Your task to perform on an android device: Open display settings Image 0: 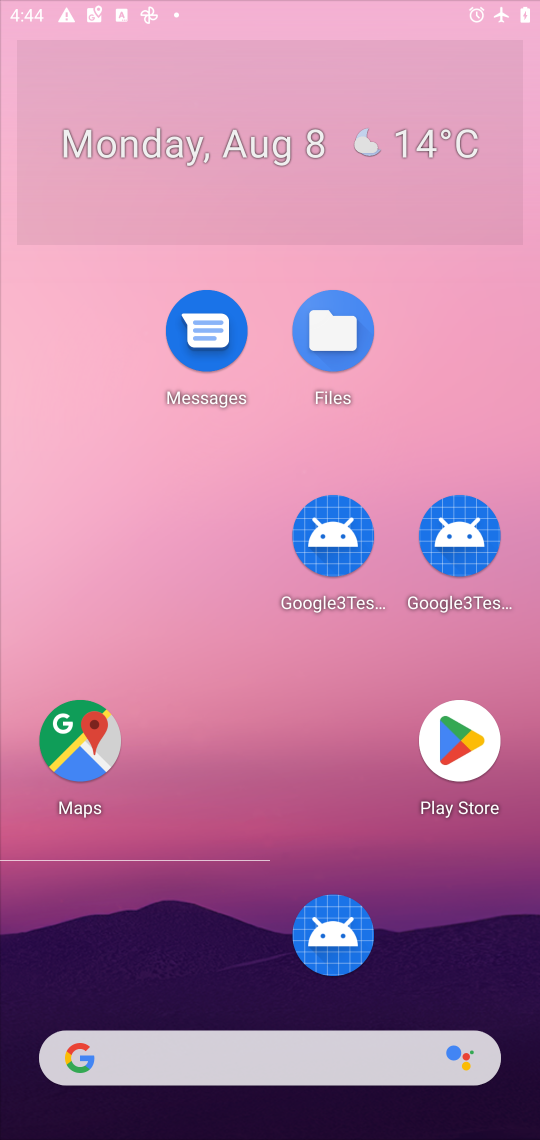
Step 0: drag from (354, 1047) to (497, 362)
Your task to perform on an android device: Open display settings Image 1: 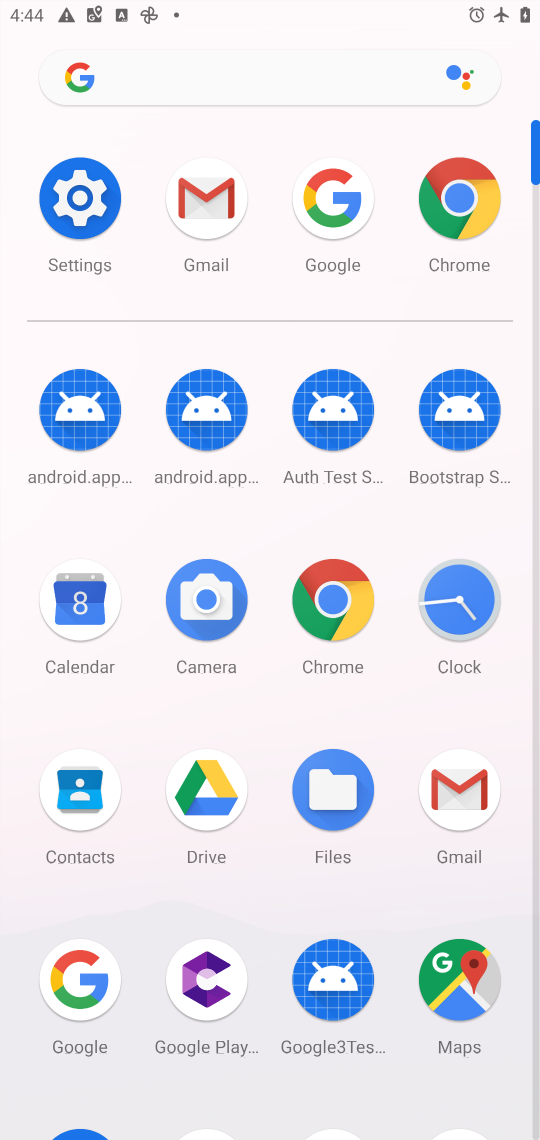
Step 1: click (84, 813)
Your task to perform on an android device: Open display settings Image 2: 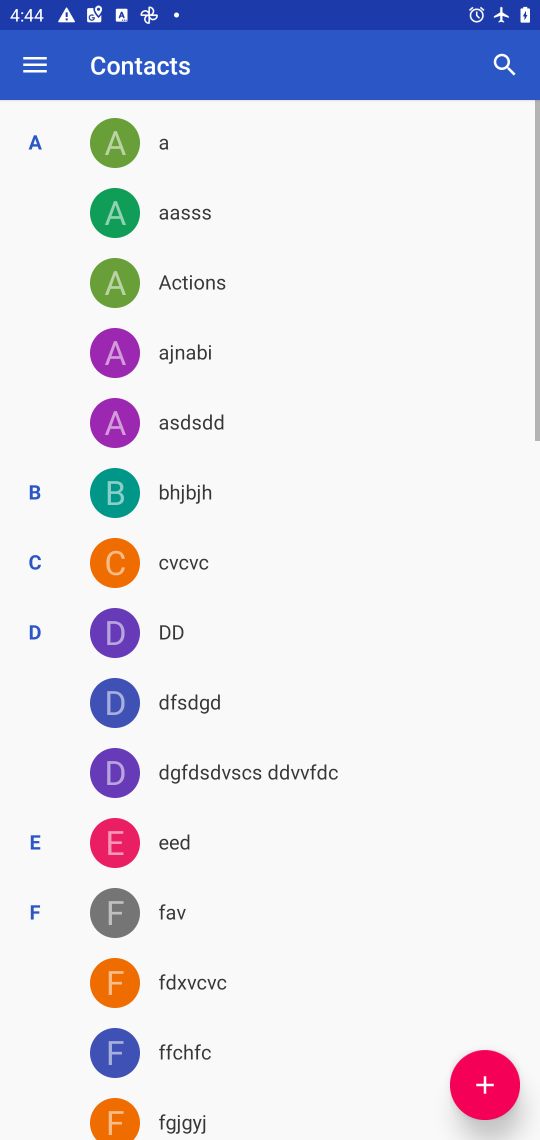
Step 2: press home button
Your task to perform on an android device: Open display settings Image 3: 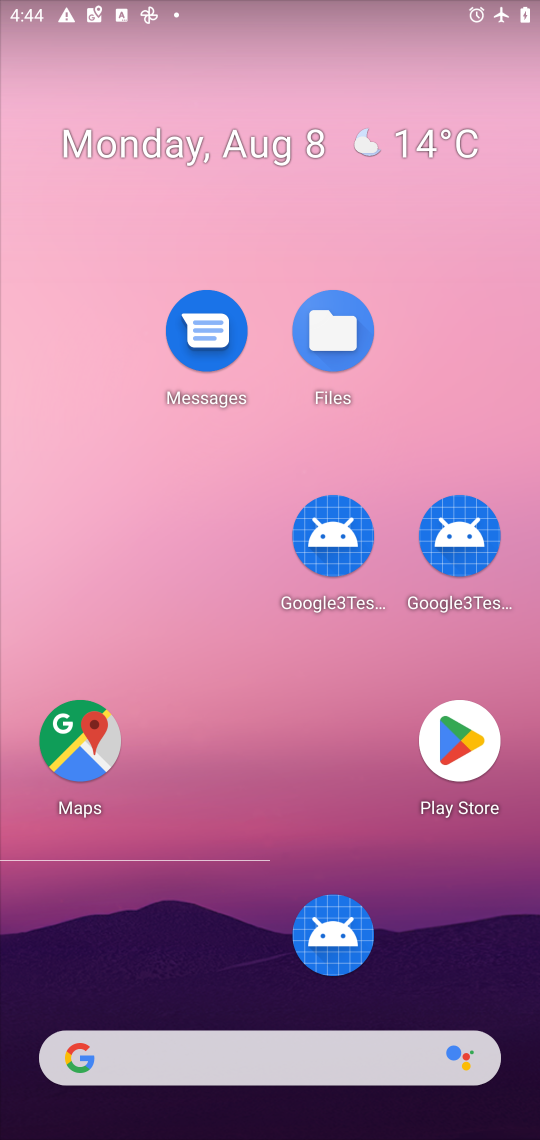
Step 3: drag from (291, 1047) to (97, 172)
Your task to perform on an android device: Open display settings Image 4: 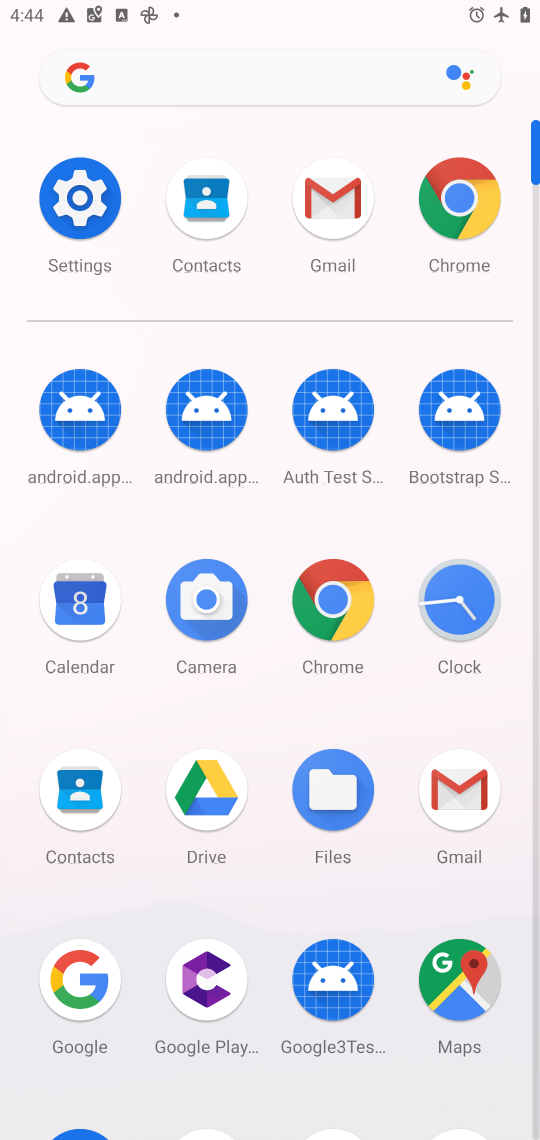
Step 4: click (80, 199)
Your task to perform on an android device: Open display settings Image 5: 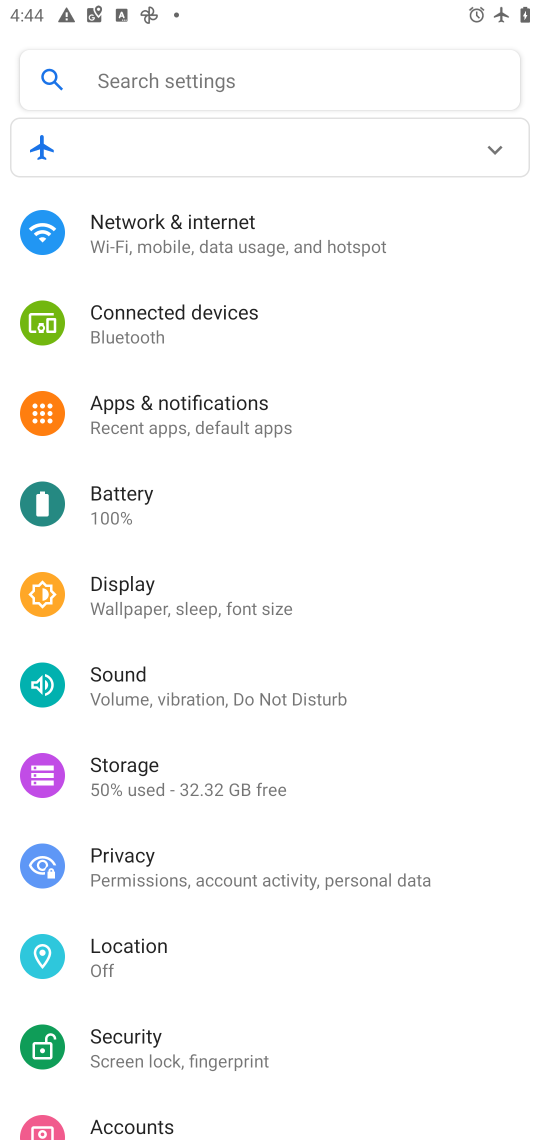
Step 5: click (213, 585)
Your task to perform on an android device: Open display settings Image 6: 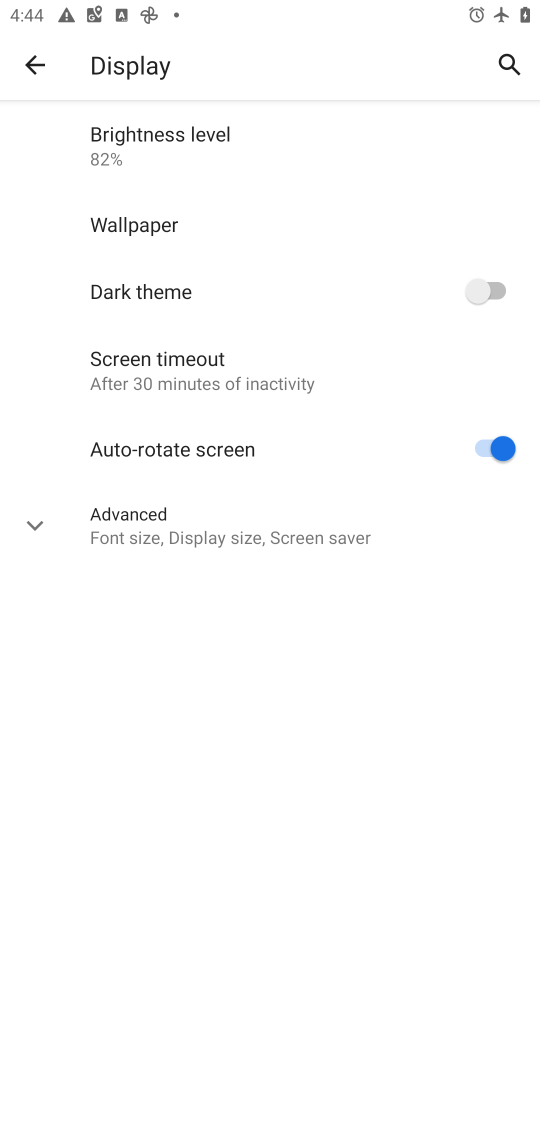
Step 6: task complete